Your task to perform on an android device: Open settings Image 0: 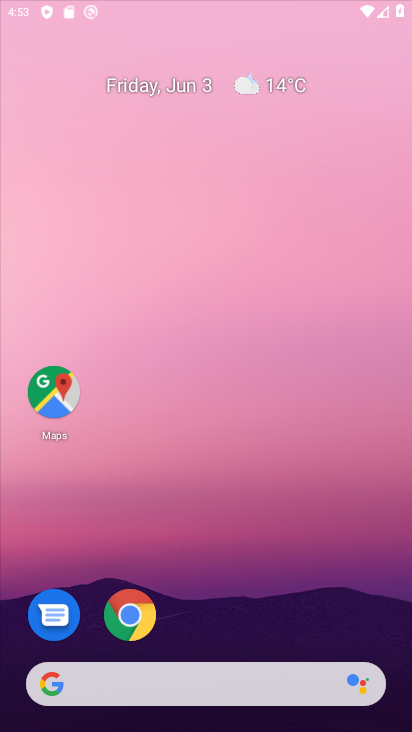
Step 0: press back button
Your task to perform on an android device: Open settings Image 1: 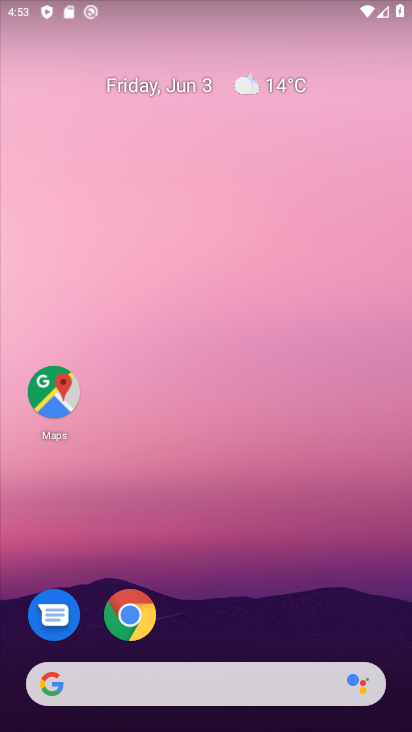
Step 1: drag from (187, 628) to (204, 51)
Your task to perform on an android device: Open settings Image 2: 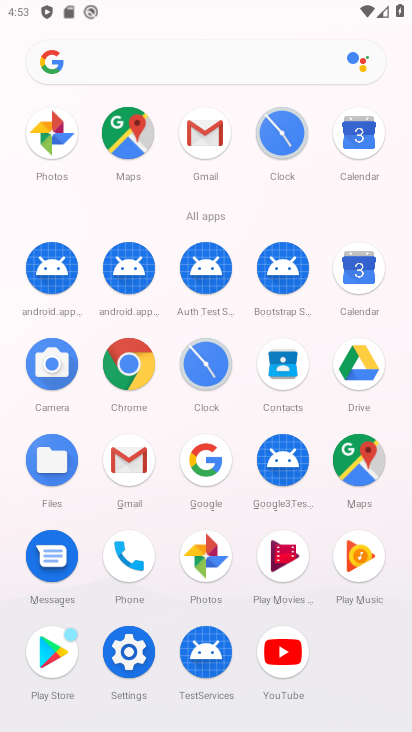
Step 2: click (116, 657)
Your task to perform on an android device: Open settings Image 3: 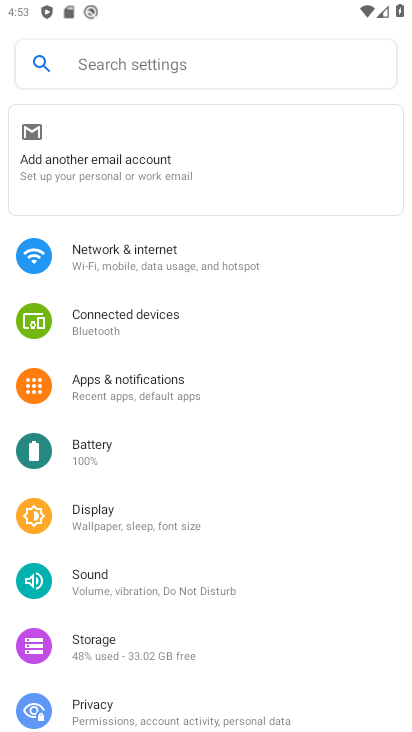
Step 3: task complete